Your task to perform on an android device: Check the news Image 0: 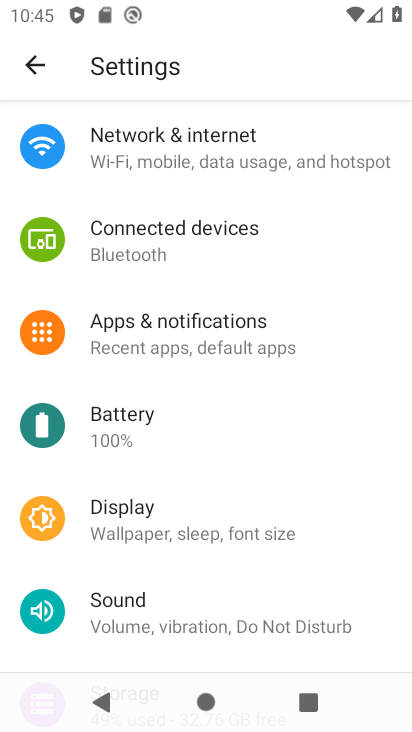
Step 0: press back button
Your task to perform on an android device: Check the news Image 1: 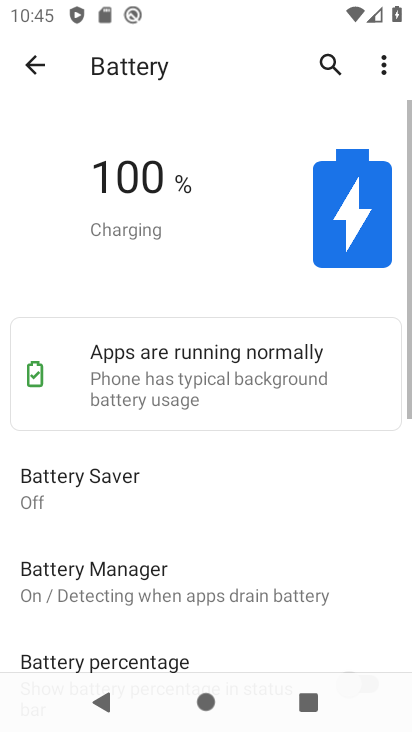
Step 1: press back button
Your task to perform on an android device: Check the news Image 2: 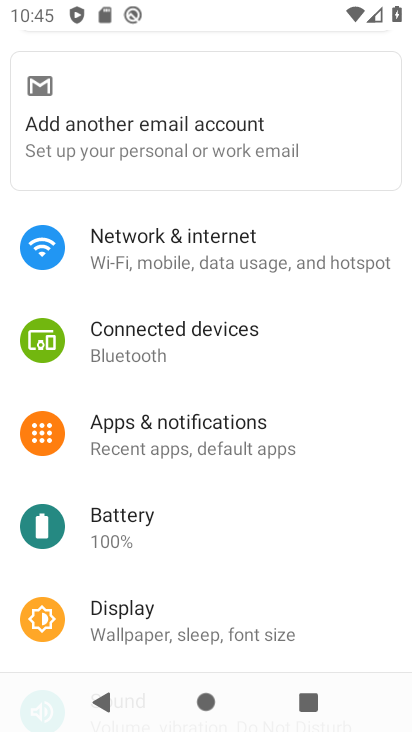
Step 2: press back button
Your task to perform on an android device: Check the news Image 3: 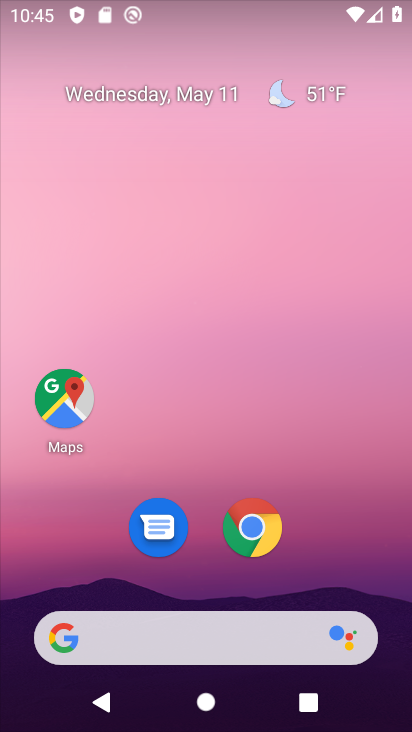
Step 3: drag from (330, 546) to (257, 89)
Your task to perform on an android device: Check the news Image 4: 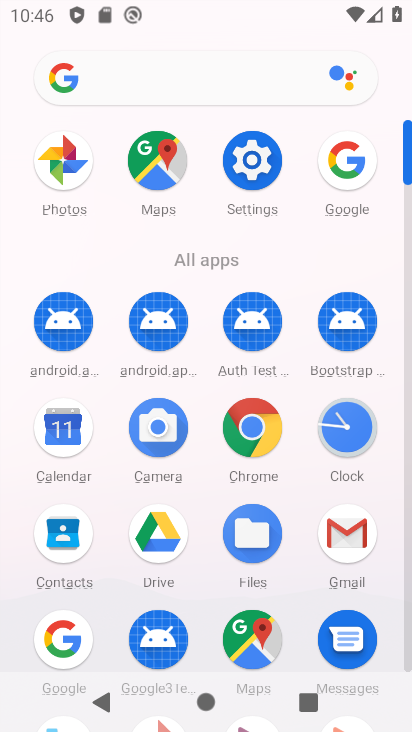
Step 4: click (341, 161)
Your task to perform on an android device: Check the news Image 5: 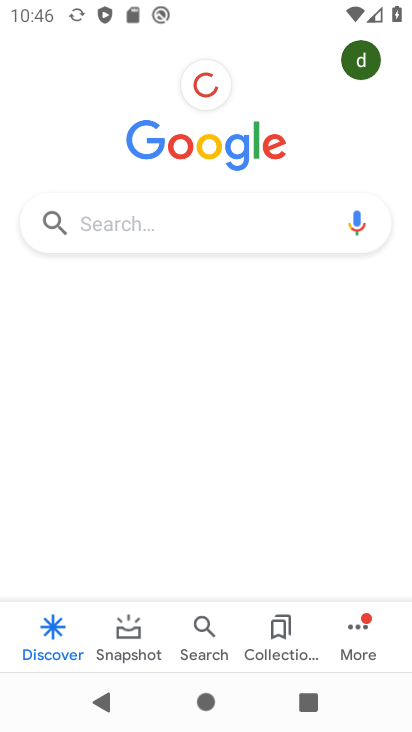
Step 5: click (184, 211)
Your task to perform on an android device: Check the news Image 6: 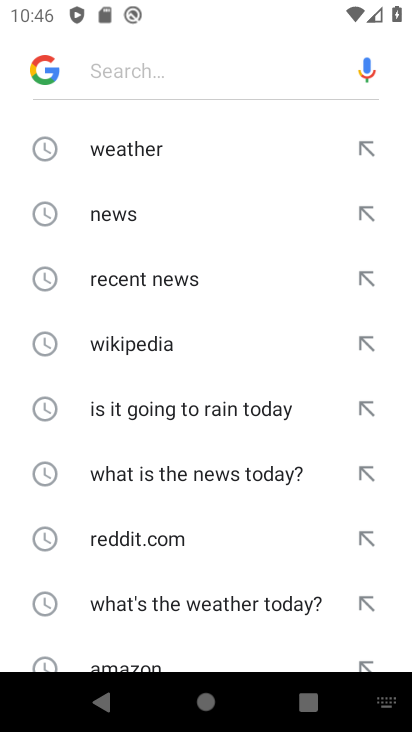
Step 6: click (107, 214)
Your task to perform on an android device: Check the news Image 7: 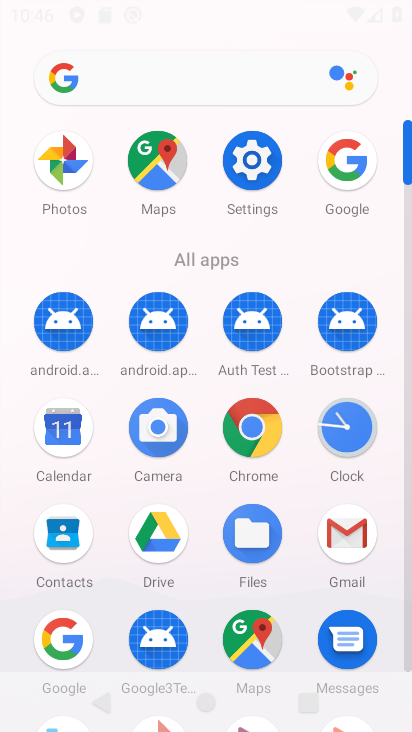
Step 7: task complete